Your task to perform on an android device: open app "DoorDash - Food Delivery" (install if not already installed) Image 0: 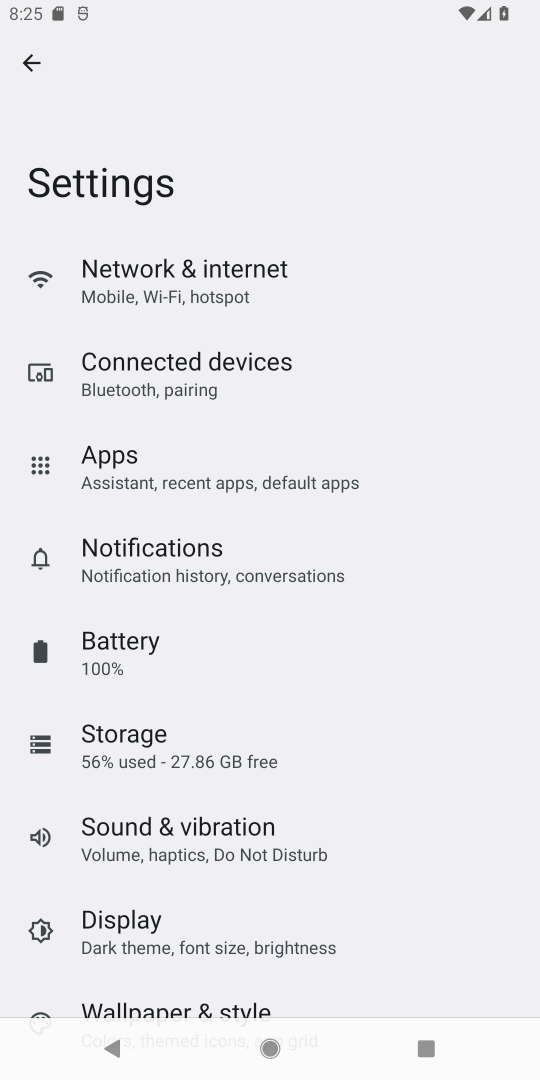
Step 0: press home button
Your task to perform on an android device: open app "DoorDash - Food Delivery" (install if not already installed) Image 1: 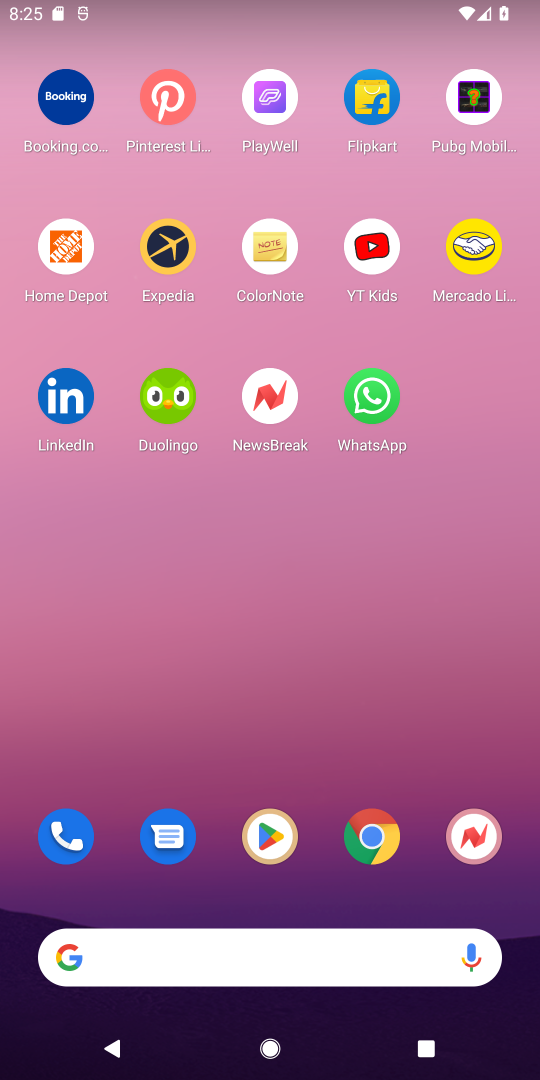
Step 1: press home button
Your task to perform on an android device: open app "DoorDash - Food Delivery" (install if not already installed) Image 2: 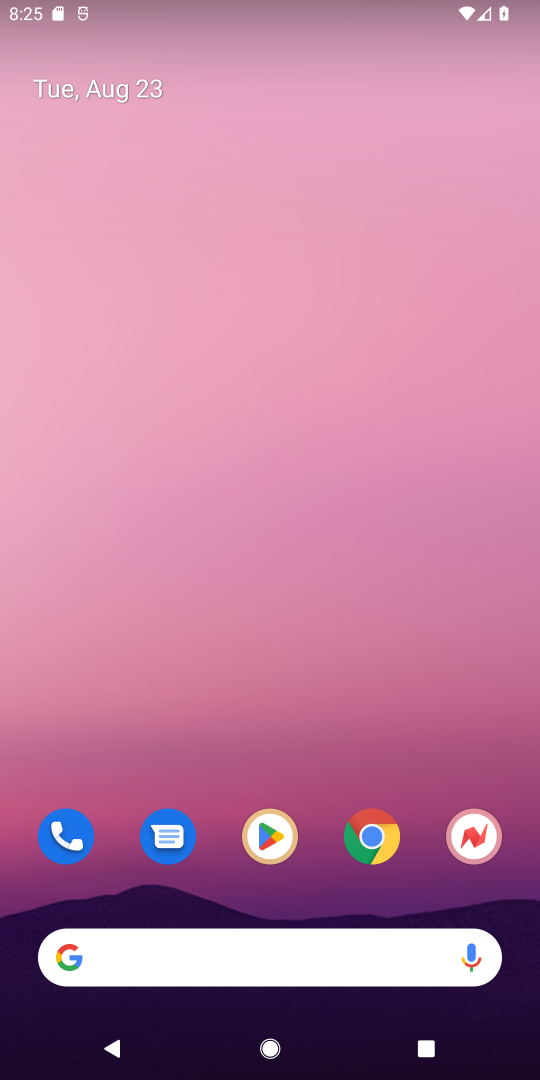
Step 2: click (274, 836)
Your task to perform on an android device: open app "DoorDash - Food Delivery" (install if not already installed) Image 3: 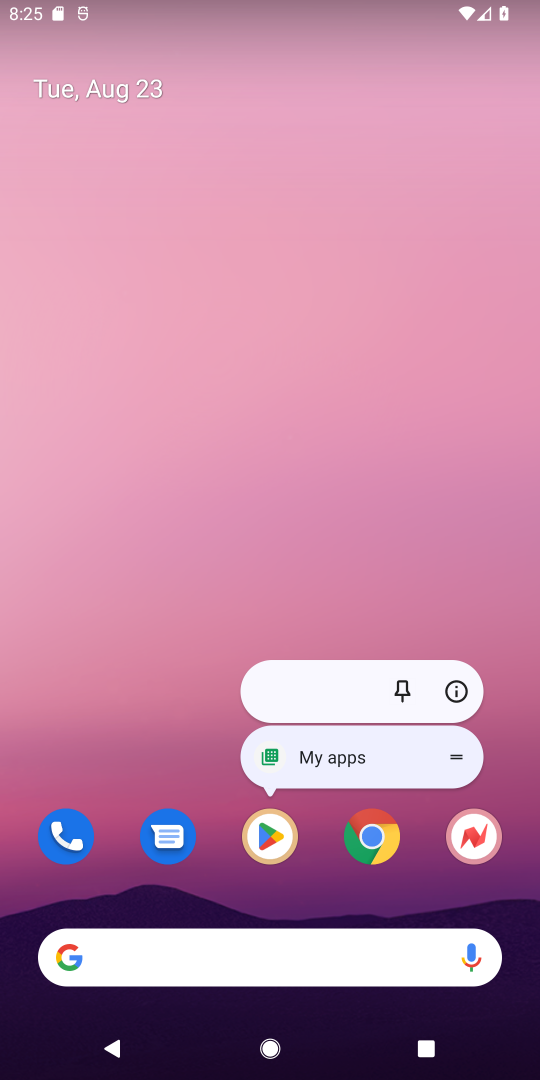
Step 3: click (274, 846)
Your task to perform on an android device: open app "DoorDash - Food Delivery" (install if not already installed) Image 4: 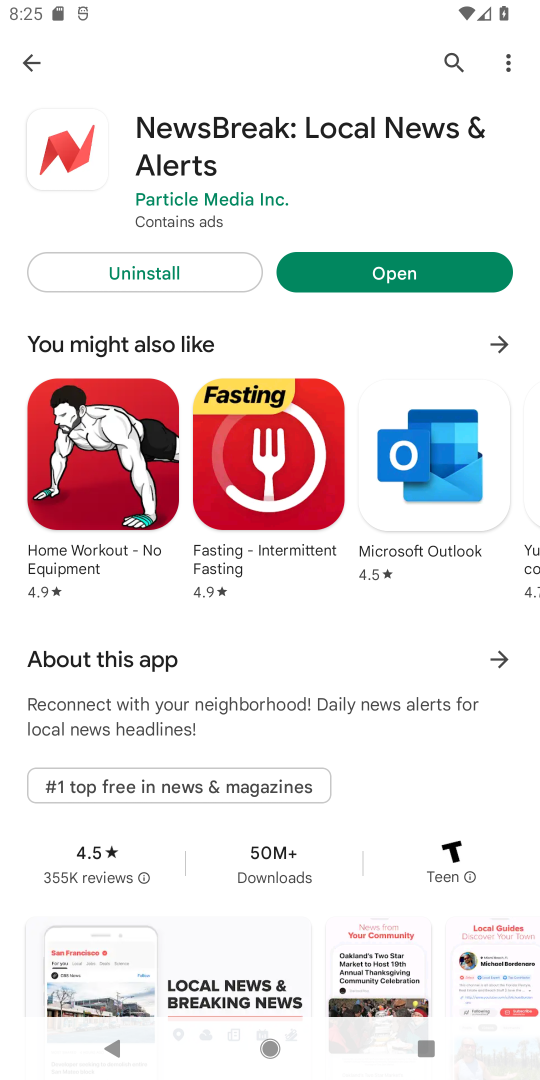
Step 4: click (450, 59)
Your task to perform on an android device: open app "DoorDash - Food Delivery" (install if not already installed) Image 5: 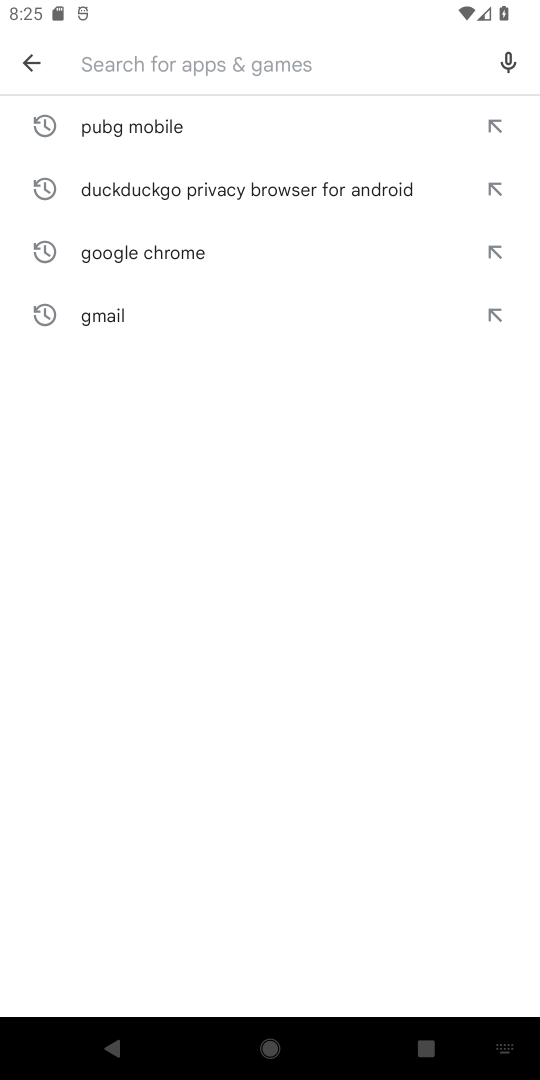
Step 5: type "DoorDash - Food Delivery"
Your task to perform on an android device: open app "DoorDash - Food Delivery" (install if not already installed) Image 6: 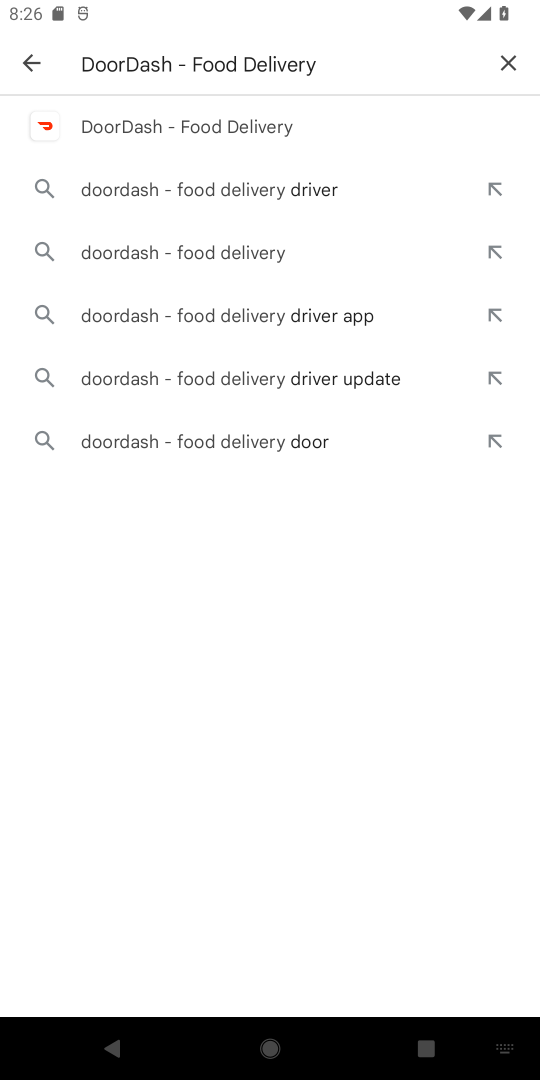
Step 6: click (276, 129)
Your task to perform on an android device: open app "DoorDash - Food Delivery" (install if not already installed) Image 7: 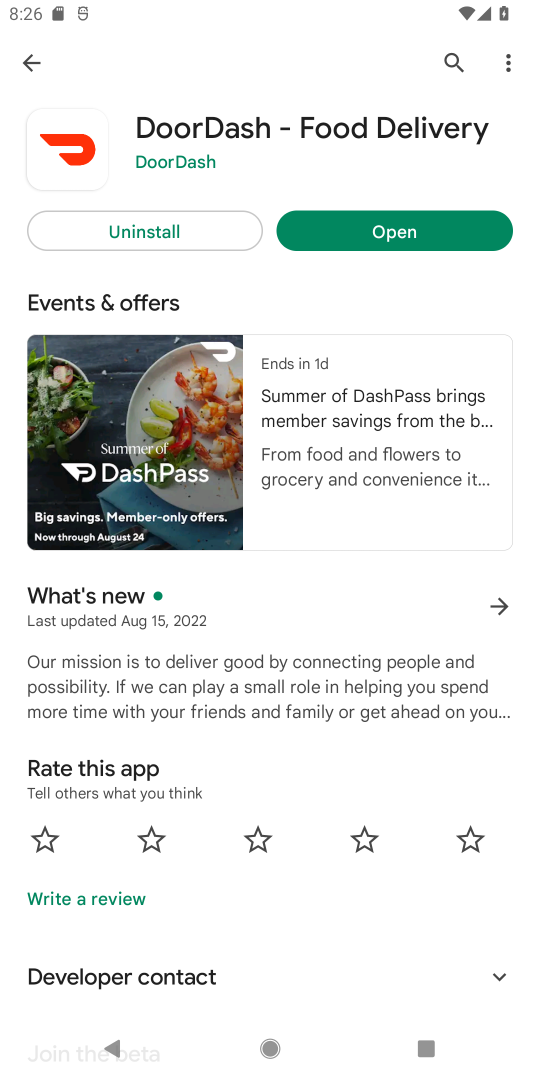
Step 7: click (423, 231)
Your task to perform on an android device: open app "DoorDash - Food Delivery" (install if not already installed) Image 8: 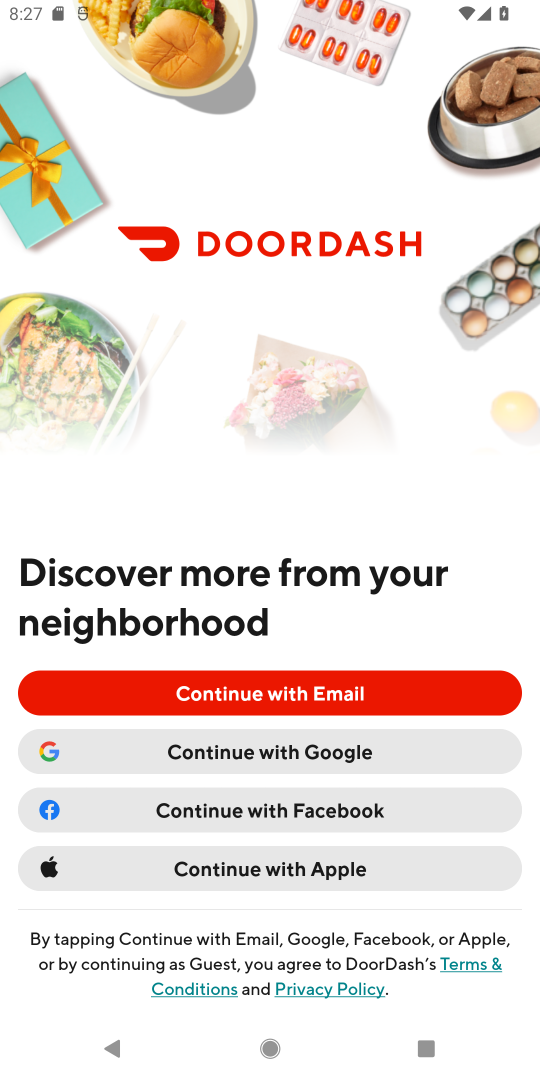
Step 8: task complete